Your task to perform on an android device: Open calendar and show me the first week of next month Image 0: 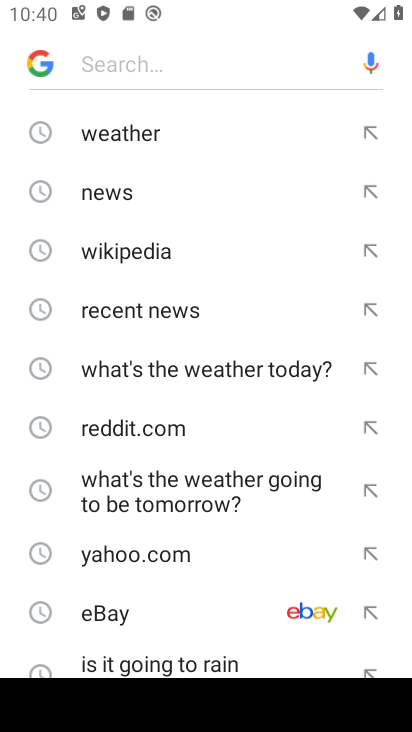
Step 0: press home button
Your task to perform on an android device: Open calendar and show me the first week of next month Image 1: 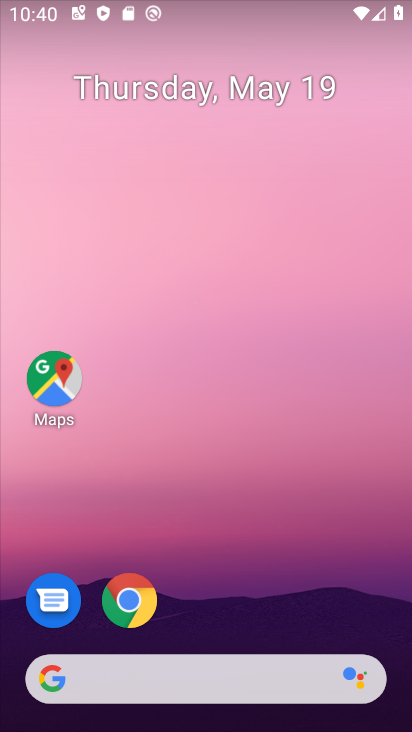
Step 1: drag from (297, 624) to (246, 125)
Your task to perform on an android device: Open calendar and show me the first week of next month Image 2: 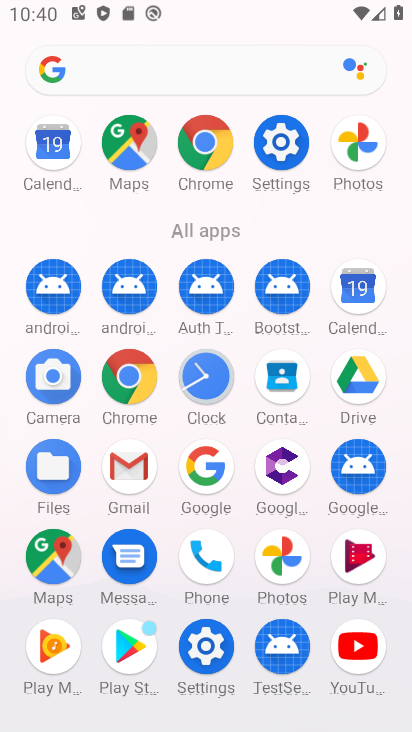
Step 2: click (361, 300)
Your task to perform on an android device: Open calendar and show me the first week of next month Image 3: 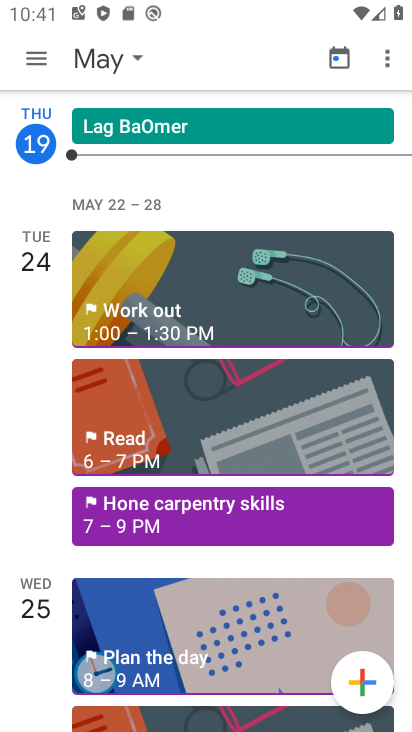
Step 3: click (136, 60)
Your task to perform on an android device: Open calendar and show me the first week of next month Image 4: 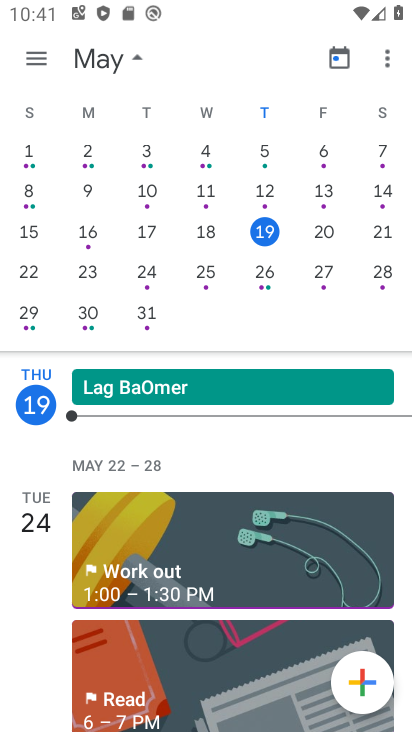
Step 4: task complete